Your task to perform on an android device: check google app version Image 0: 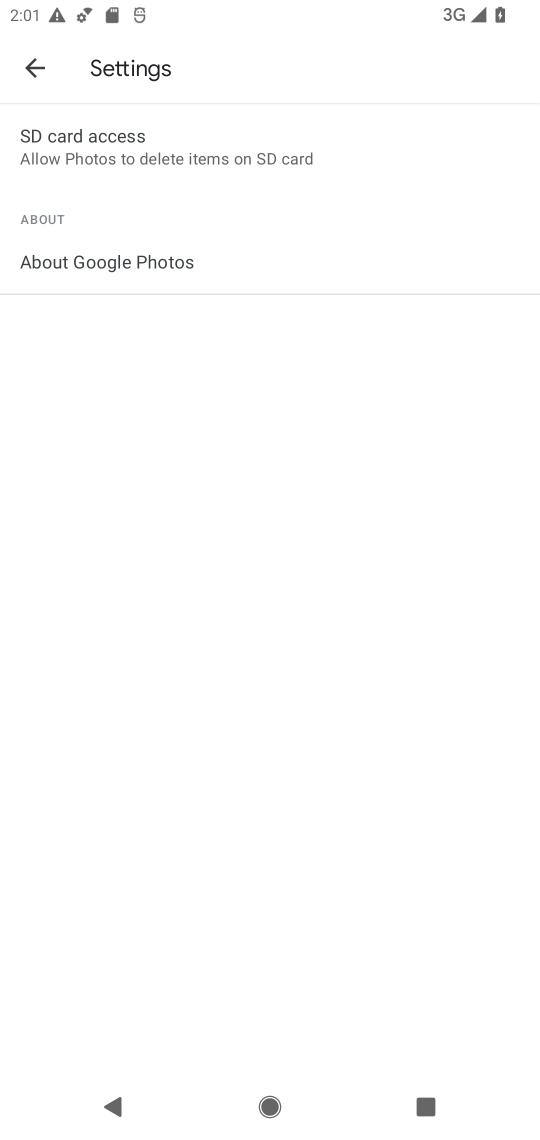
Step 0: press home button
Your task to perform on an android device: check google app version Image 1: 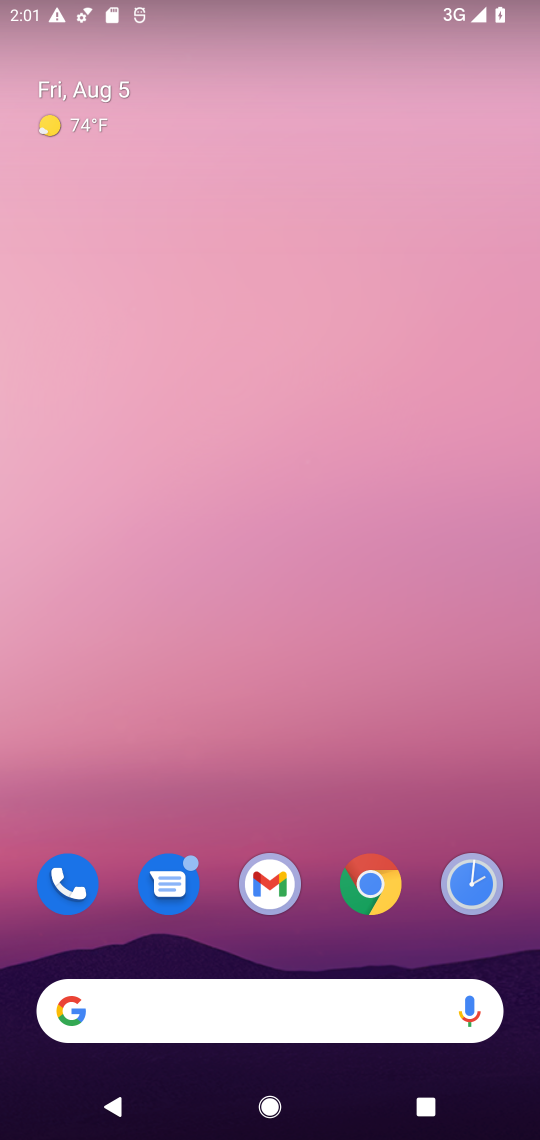
Step 1: drag from (479, 1016) to (322, 134)
Your task to perform on an android device: check google app version Image 2: 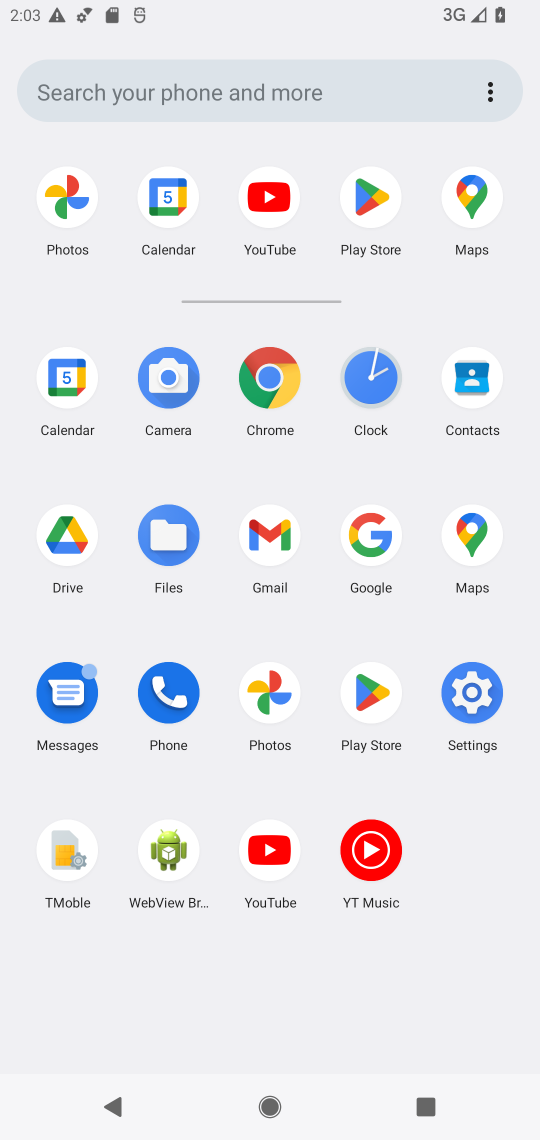
Step 2: click (266, 549)
Your task to perform on an android device: check google app version Image 3: 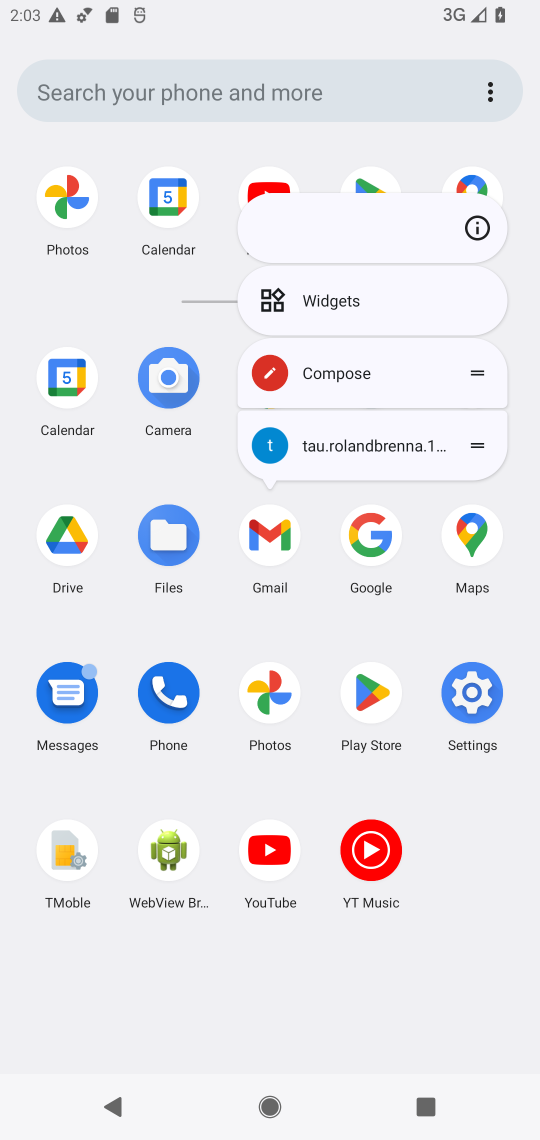
Step 3: click (483, 223)
Your task to perform on an android device: check google app version Image 4: 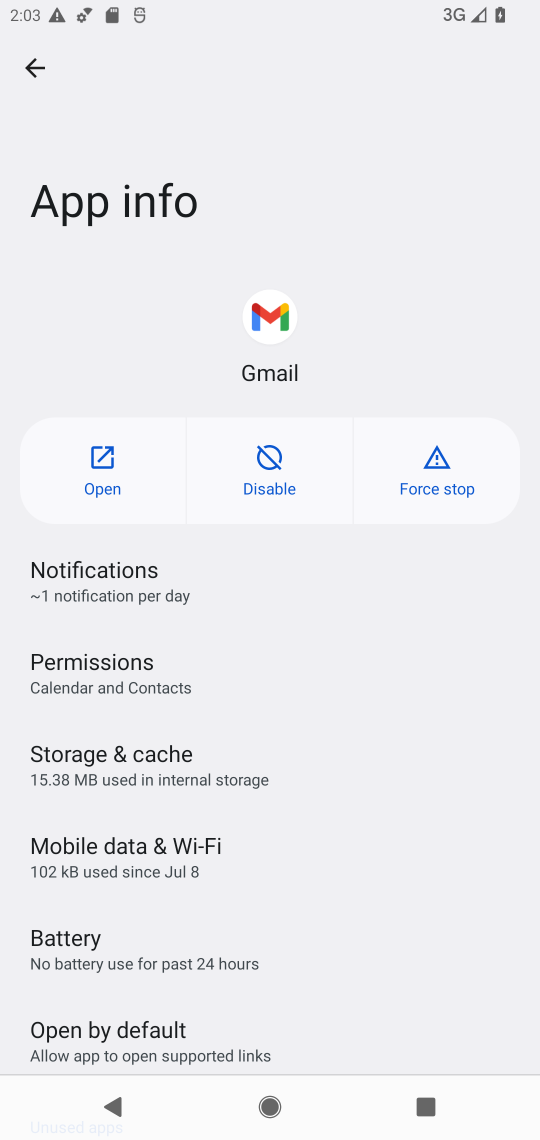
Step 4: task complete